Your task to perform on an android device: Open Chrome and go to settings Image 0: 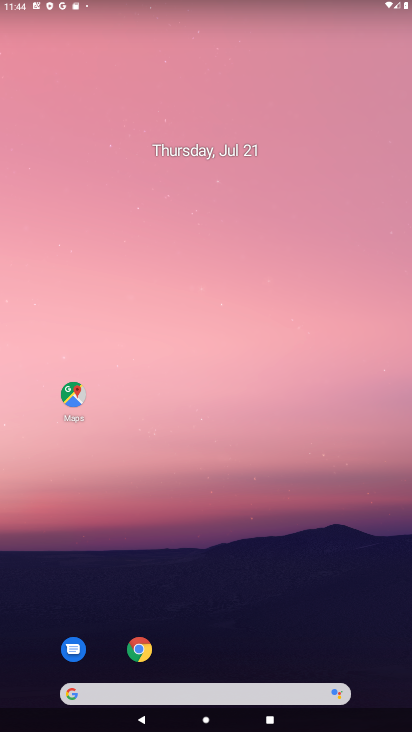
Step 0: click (140, 652)
Your task to perform on an android device: Open Chrome and go to settings Image 1: 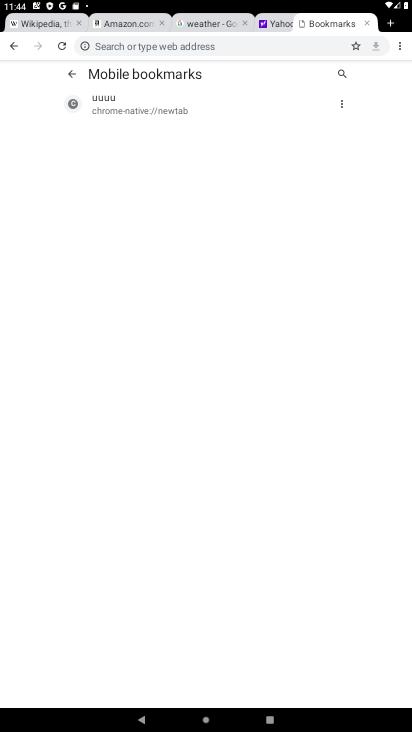
Step 1: click (400, 47)
Your task to perform on an android device: Open Chrome and go to settings Image 2: 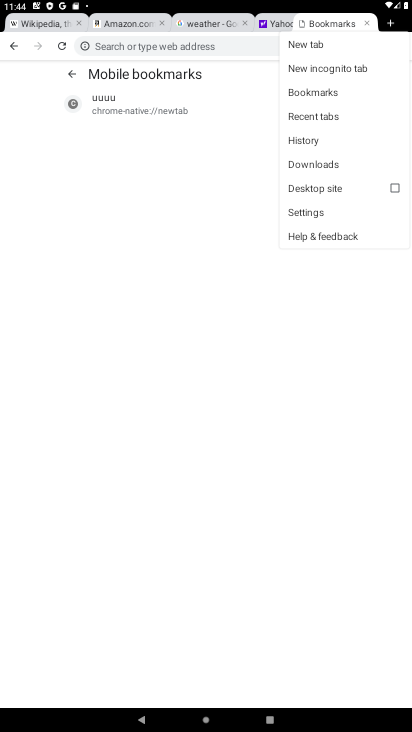
Step 2: click (305, 212)
Your task to perform on an android device: Open Chrome and go to settings Image 3: 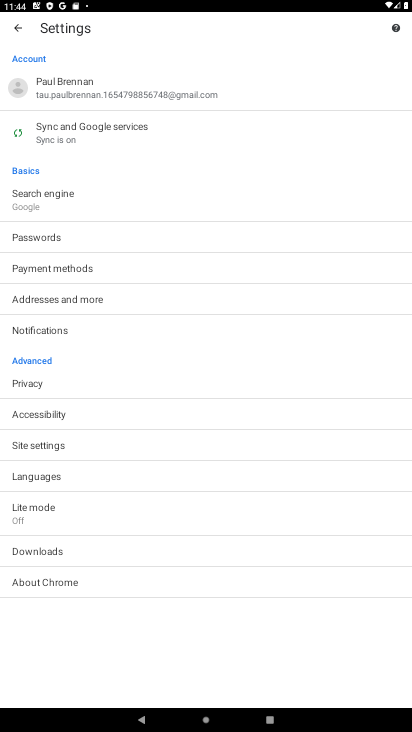
Step 3: task complete